Your task to perform on an android device: Show me productivity apps on the Play Store Image 0: 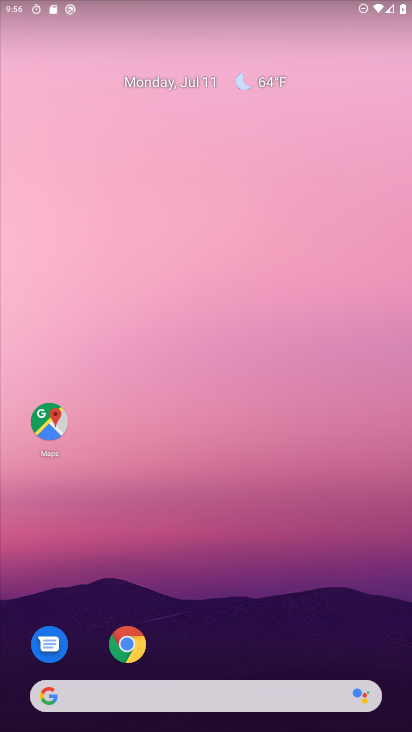
Step 0: drag from (332, 613) to (293, 86)
Your task to perform on an android device: Show me productivity apps on the Play Store Image 1: 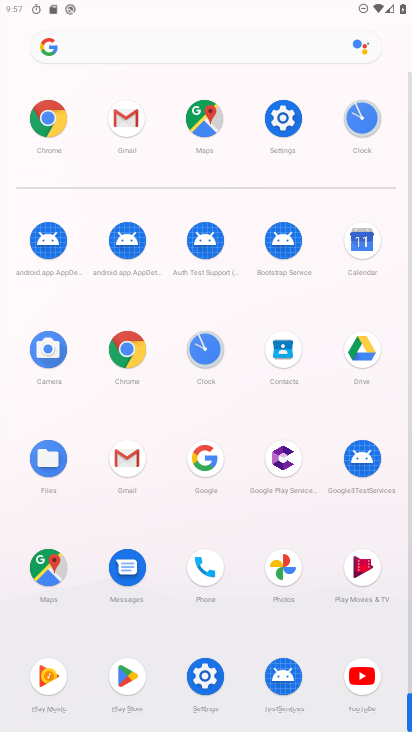
Step 1: click (136, 675)
Your task to perform on an android device: Show me productivity apps on the Play Store Image 2: 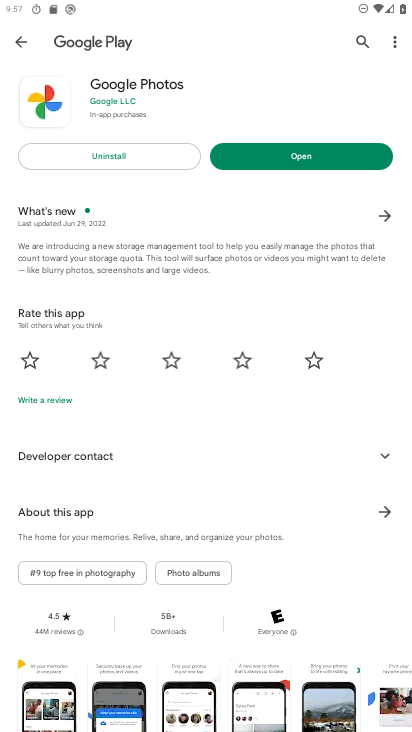
Step 2: click (28, 38)
Your task to perform on an android device: Show me productivity apps on the Play Store Image 3: 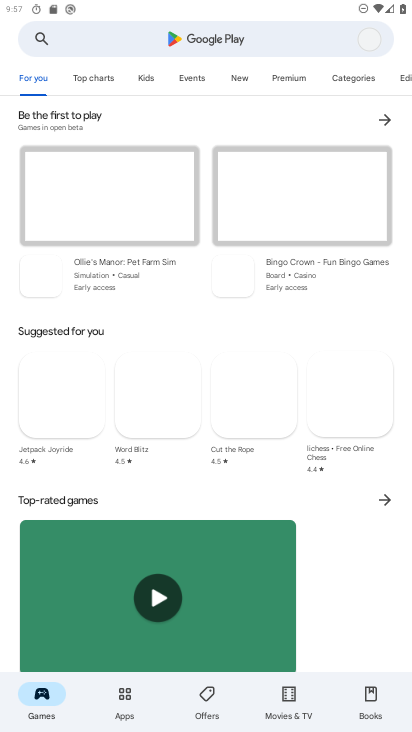
Step 3: click (121, 700)
Your task to perform on an android device: Show me productivity apps on the Play Store Image 4: 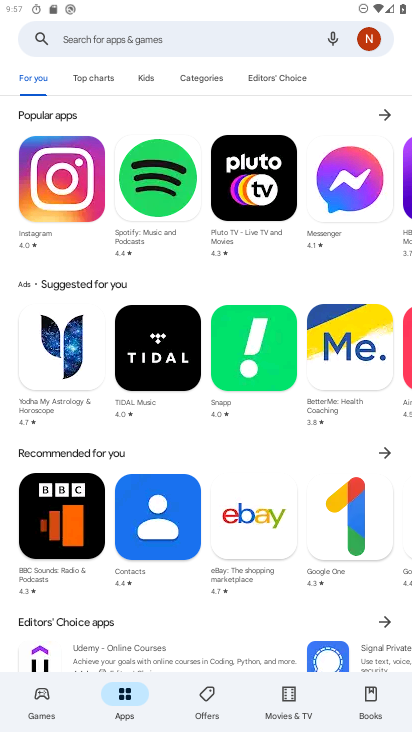
Step 4: task complete